Your task to perform on an android device: Open display settings Image 0: 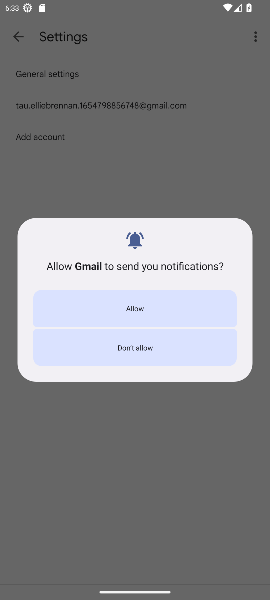
Step 0: task complete